Your task to perform on an android device: delete the emails in spam in the gmail app Image 0: 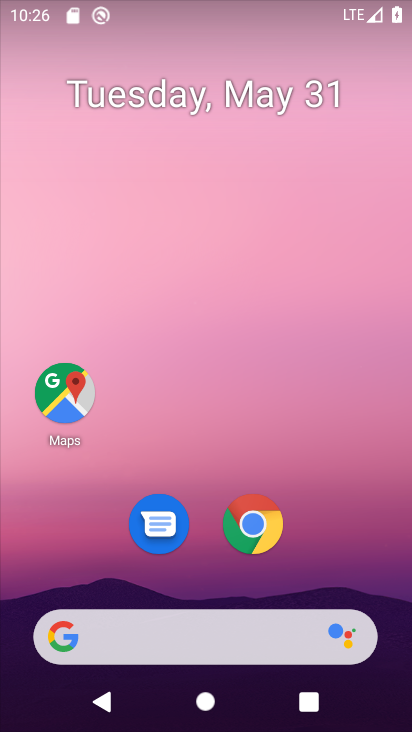
Step 0: drag from (231, 439) to (276, 29)
Your task to perform on an android device: delete the emails in spam in the gmail app Image 1: 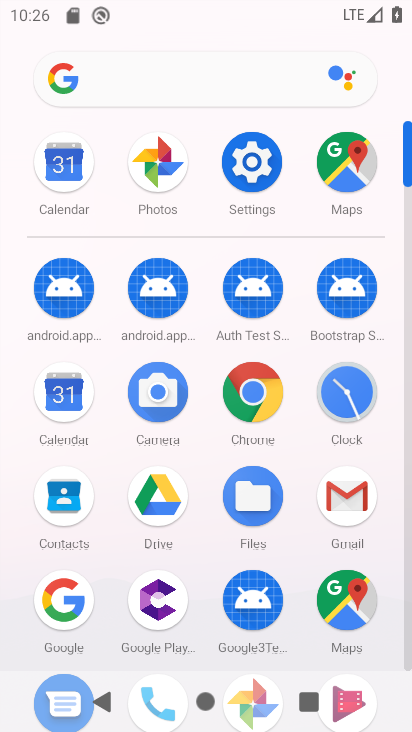
Step 1: click (341, 489)
Your task to perform on an android device: delete the emails in spam in the gmail app Image 2: 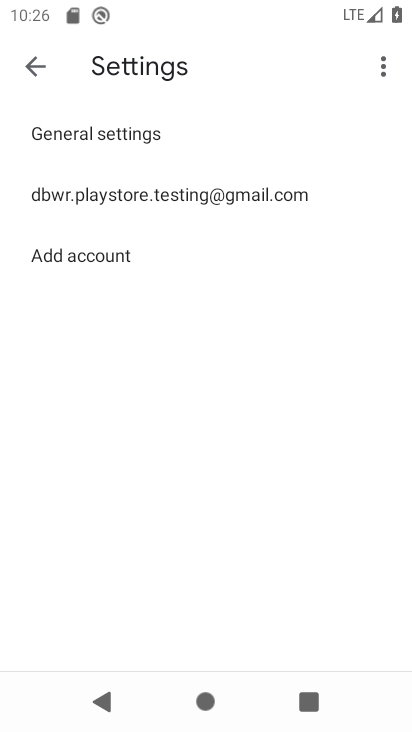
Step 2: click (34, 58)
Your task to perform on an android device: delete the emails in spam in the gmail app Image 3: 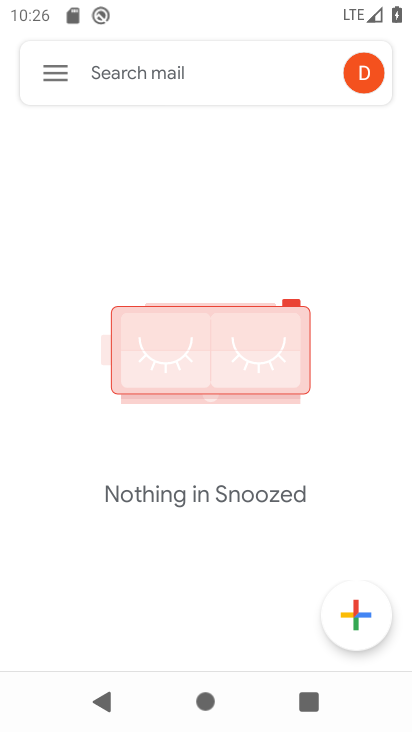
Step 3: click (53, 74)
Your task to perform on an android device: delete the emails in spam in the gmail app Image 4: 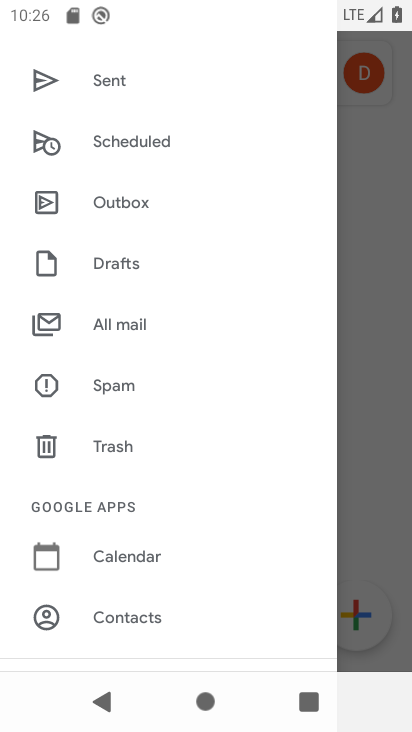
Step 4: click (153, 383)
Your task to perform on an android device: delete the emails in spam in the gmail app Image 5: 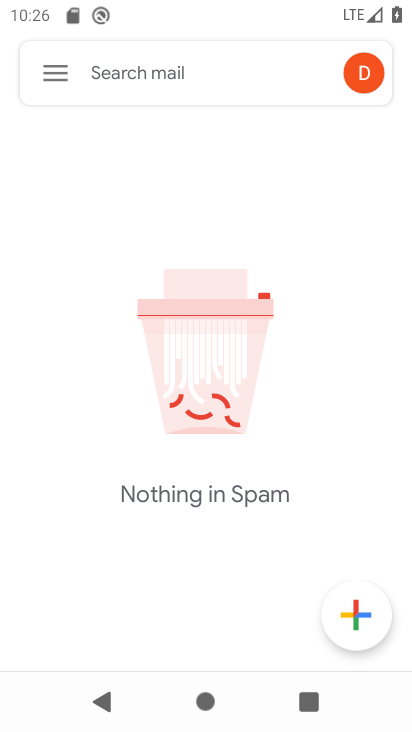
Step 5: task complete